Your task to perform on an android device: turn off location history Image 0: 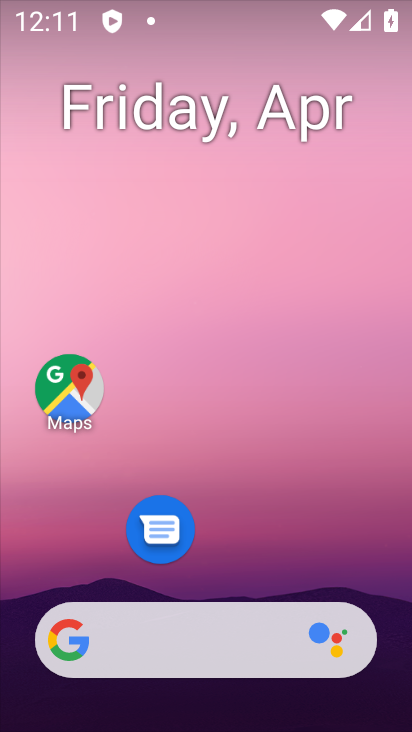
Step 0: drag from (209, 541) to (227, 4)
Your task to perform on an android device: turn off location history Image 1: 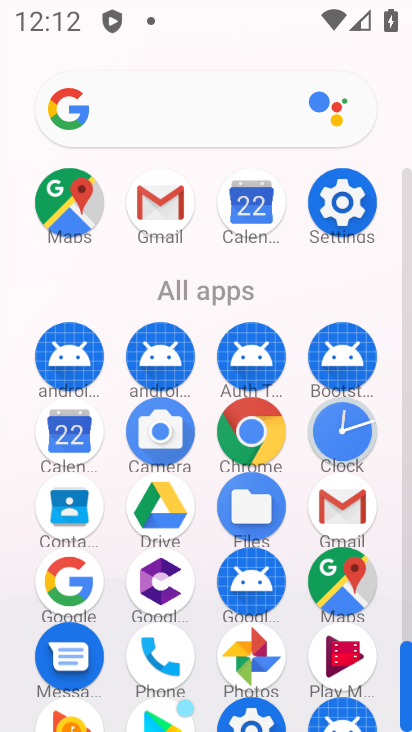
Step 1: click (350, 218)
Your task to perform on an android device: turn off location history Image 2: 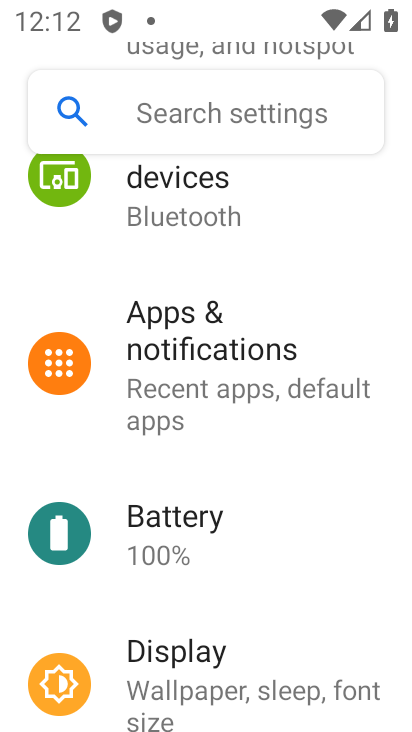
Step 2: drag from (186, 567) to (296, 76)
Your task to perform on an android device: turn off location history Image 3: 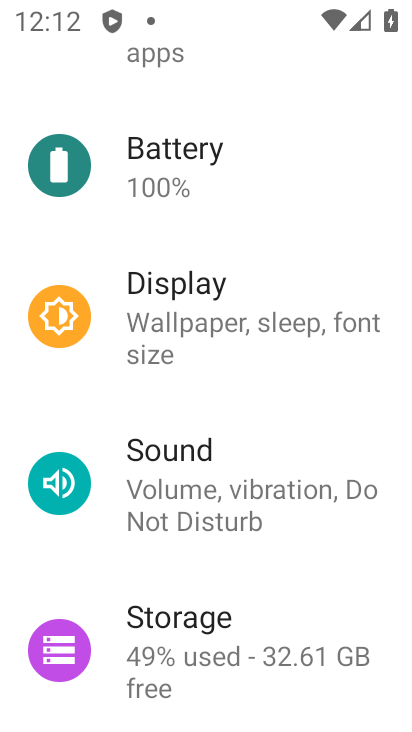
Step 3: drag from (189, 605) to (252, 212)
Your task to perform on an android device: turn off location history Image 4: 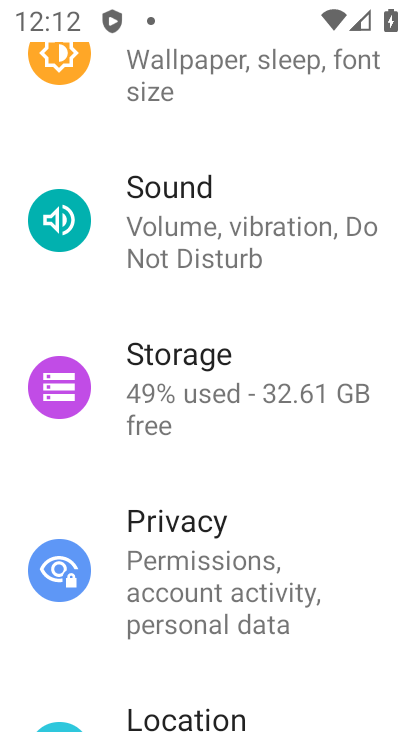
Step 4: drag from (168, 670) to (265, 276)
Your task to perform on an android device: turn off location history Image 5: 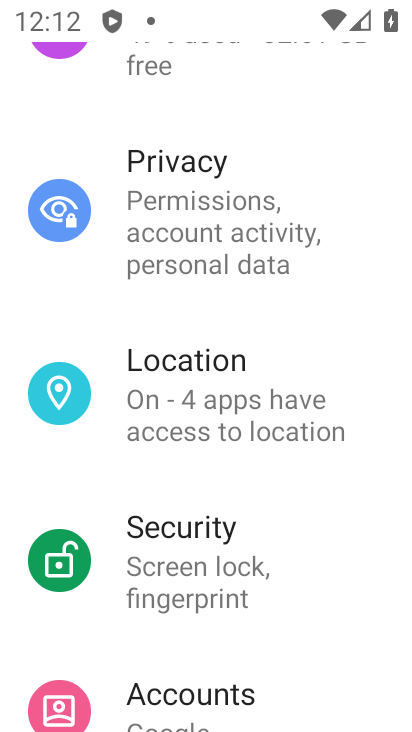
Step 5: click (181, 554)
Your task to perform on an android device: turn off location history Image 6: 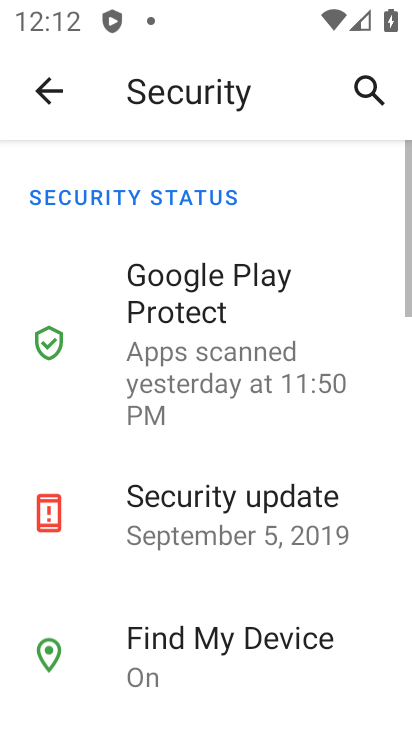
Step 6: click (176, 410)
Your task to perform on an android device: turn off location history Image 7: 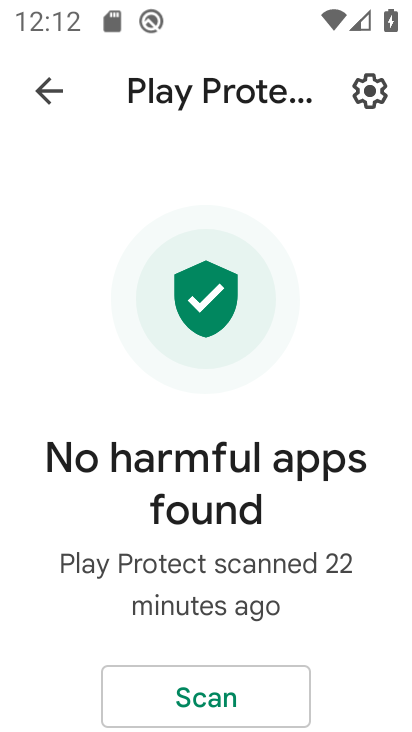
Step 7: press home button
Your task to perform on an android device: turn off location history Image 8: 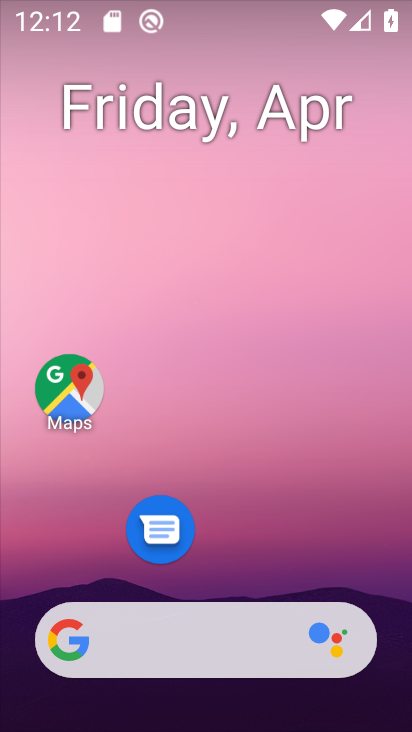
Step 8: drag from (211, 541) to (333, 4)
Your task to perform on an android device: turn off location history Image 9: 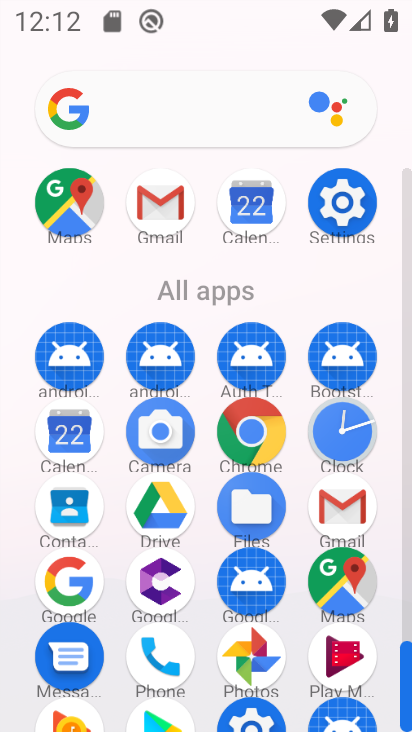
Step 9: drag from (201, 606) to (229, 268)
Your task to perform on an android device: turn off location history Image 10: 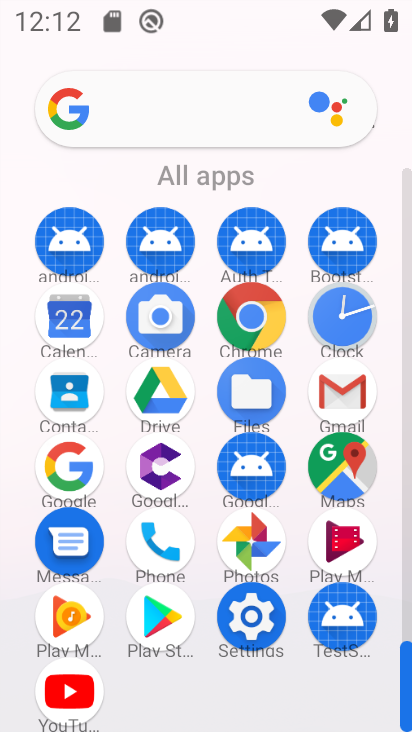
Step 10: click (248, 634)
Your task to perform on an android device: turn off location history Image 11: 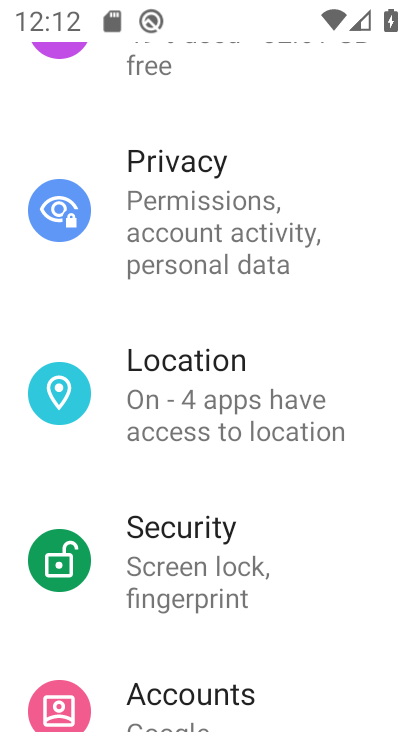
Step 11: click (212, 418)
Your task to perform on an android device: turn off location history Image 12: 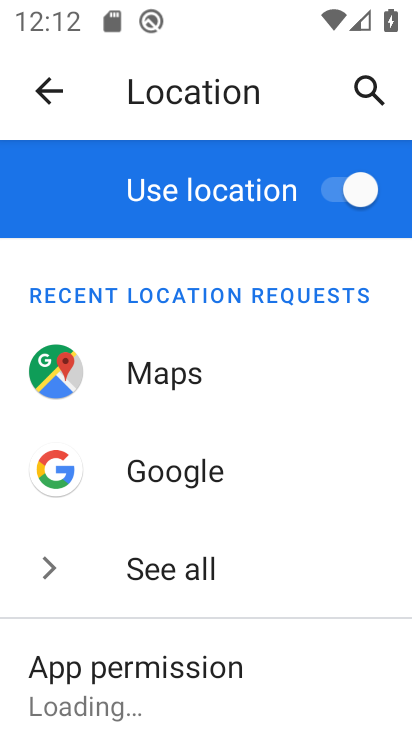
Step 12: drag from (167, 627) to (249, 311)
Your task to perform on an android device: turn off location history Image 13: 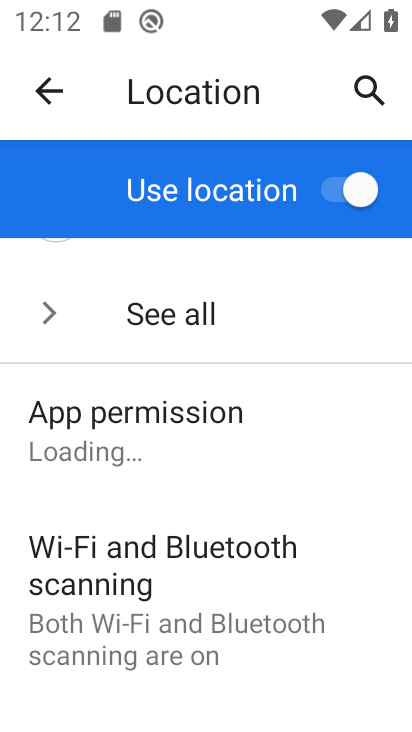
Step 13: drag from (197, 579) to (315, 179)
Your task to perform on an android device: turn off location history Image 14: 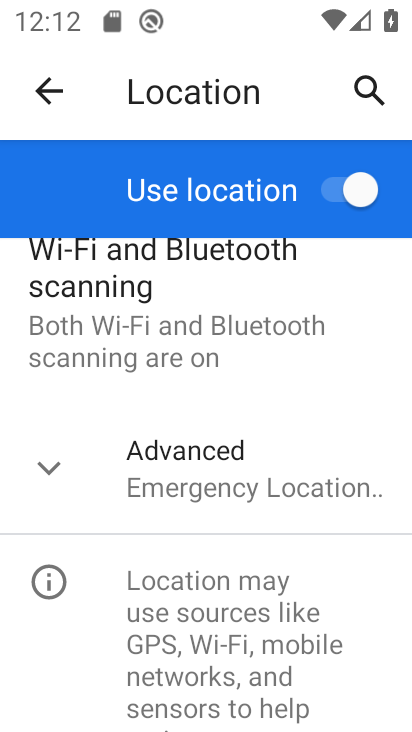
Step 14: click (212, 492)
Your task to perform on an android device: turn off location history Image 15: 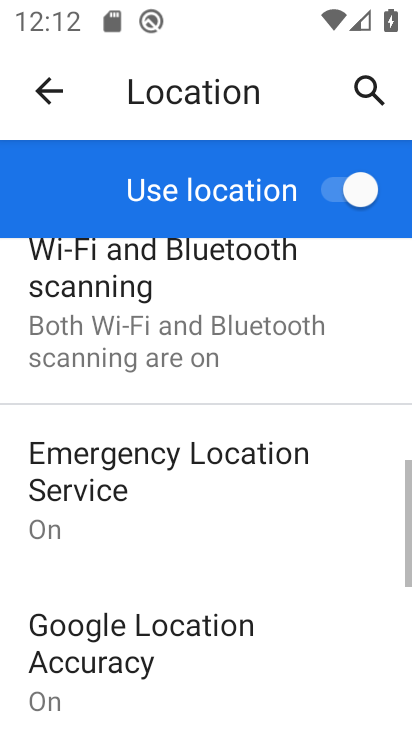
Step 15: drag from (164, 613) to (185, 466)
Your task to perform on an android device: turn off location history Image 16: 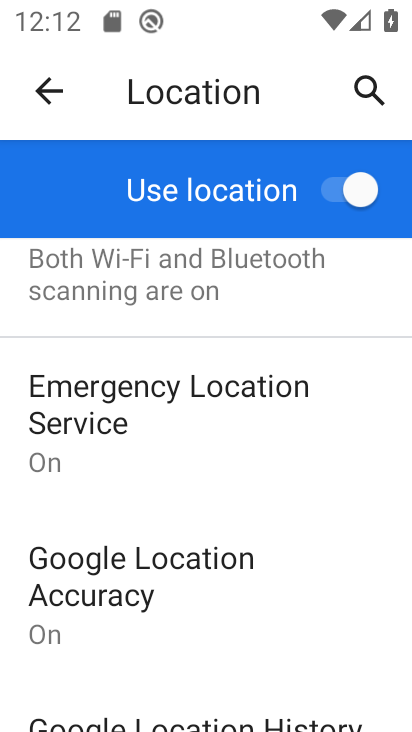
Step 16: drag from (164, 642) to (291, 286)
Your task to perform on an android device: turn off location history Image 17: 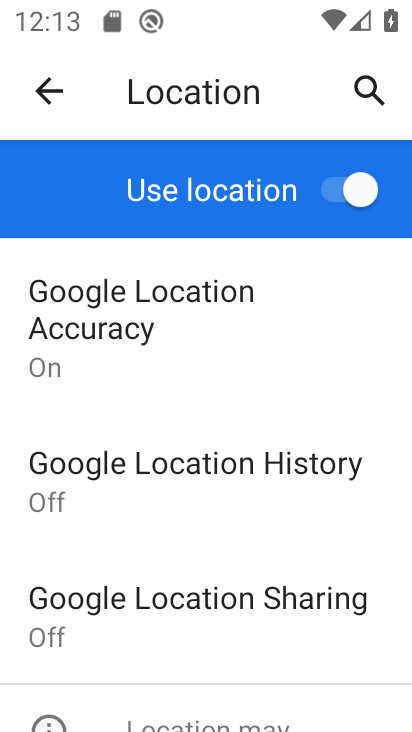
Step 17: click (196, 483)
Your task to perform on an android device: turn off location history Image 18: 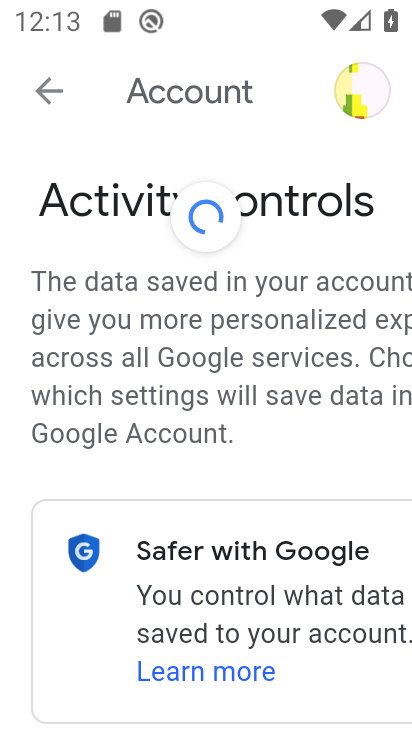
Step 18: drag from (211, 498) to (296, 32)
Your task to perform on an android device: turn off location history Image 19: 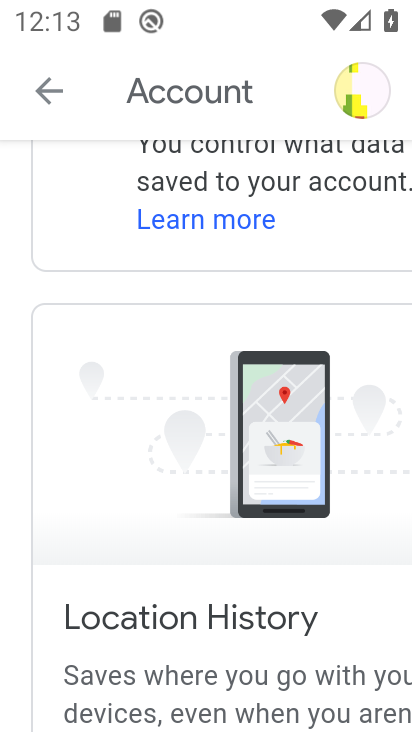
Step 19: drag from (202, 480) to (294, 1)
Your task to perform on an android device: turn off location history Image 20: 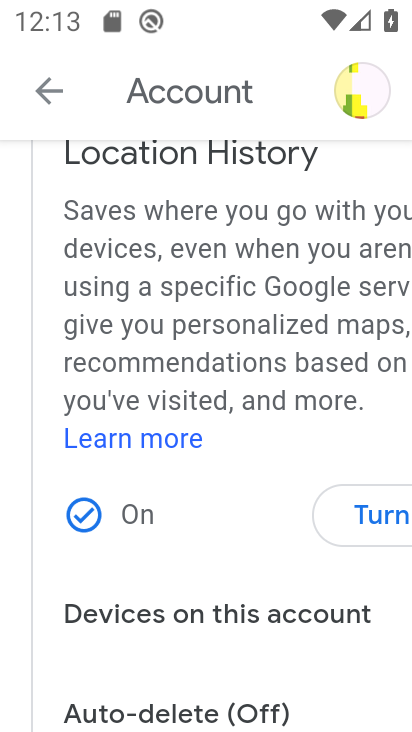
Step 20: click (352, 521)
Your task to perform on an android device: turn off location history Image 21: 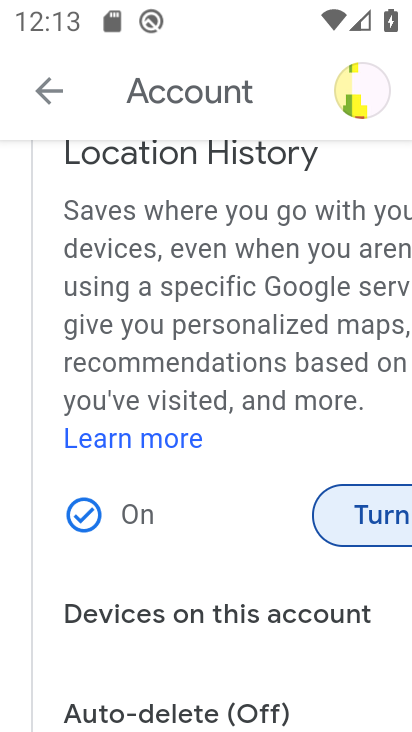
Step 21: click (366, 517)
Your task to perform on an android device: turn off location history Image 22: 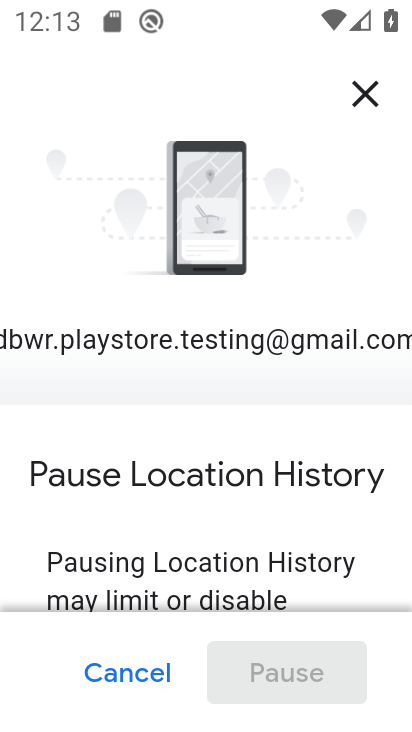
Step 22: drag from (269, 576) to (374, 104)
Your task to perform on an android device: turn off location history Image 23: 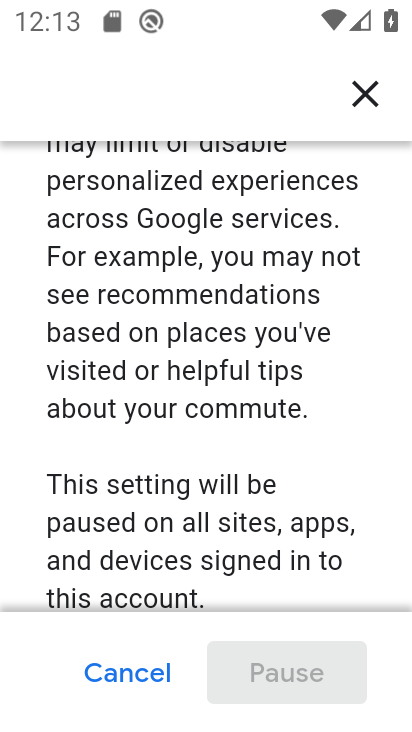
Step 23: drag from (227, 489) to (281, 203)
Your task to perform on an android device: turn off location history Image 24: 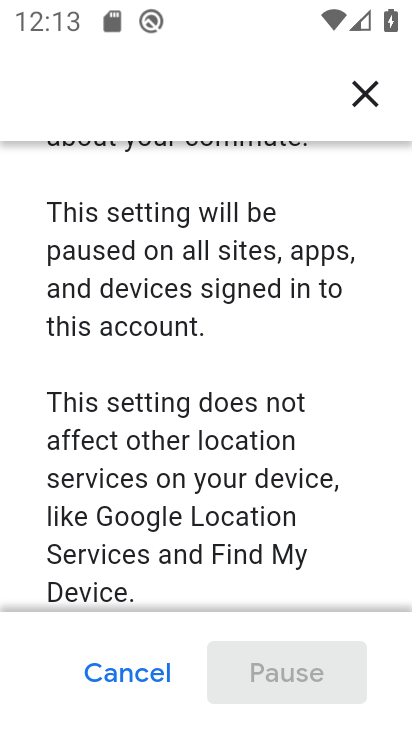
Step 24: drag from (191, 512) to (235, 269)
Your task to perform on an android device: turn off location history Image 25: 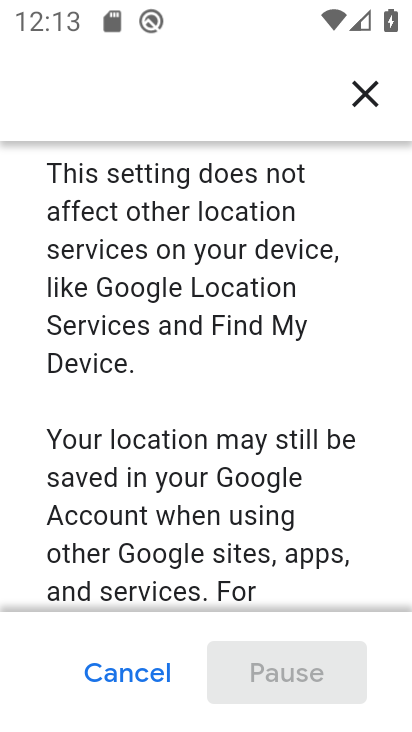
Step 25: drag from (192, 557) to (248, 294)
Your task to perform on an android device: turn off location history Image 26: 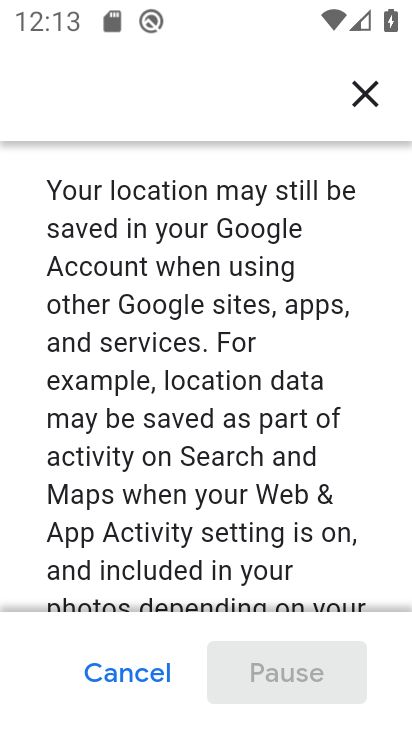
Step 26: drag from (236, 539) to (279, 295)
Your task to perform on an android device: turn off location history Image 27: 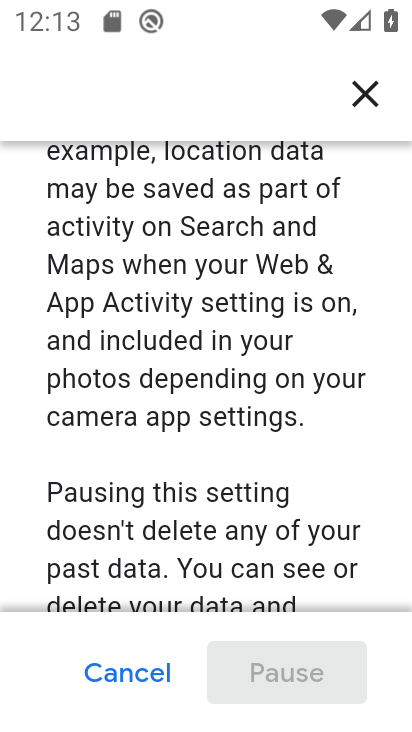
Step 27: drag from (213, 542) to (266, 240)
Your task to perform on an android device: turn off location history Image 28: 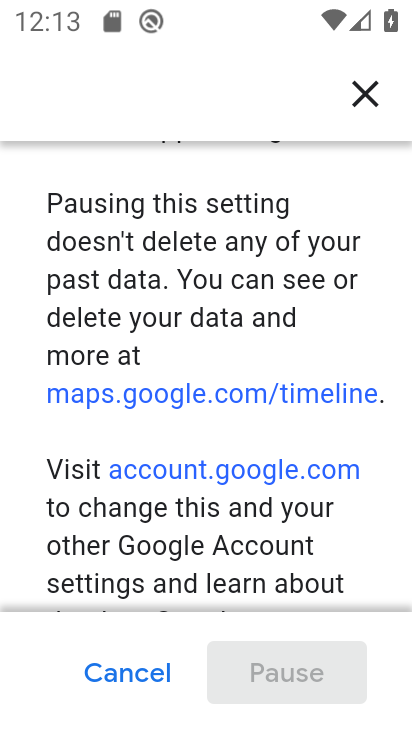
Step 28: drag from (264, 535) to (325, 178)
Your task to perform on an android device: turn off location history Image 29: 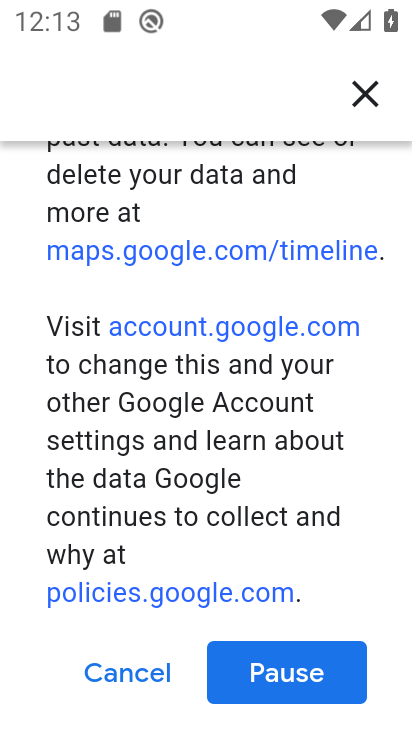
Step 29: click (278, 672)
Your task to perform on an android device: turn off location history Image 30: 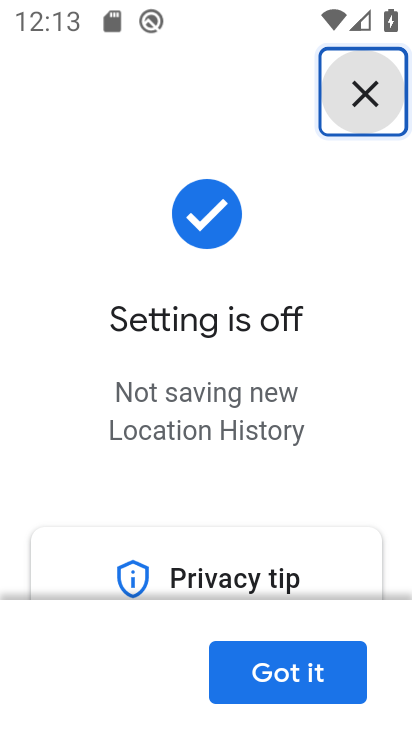
Step 30: click (278, 673)
Your task to perform on an android device: turn off location history Image 31: 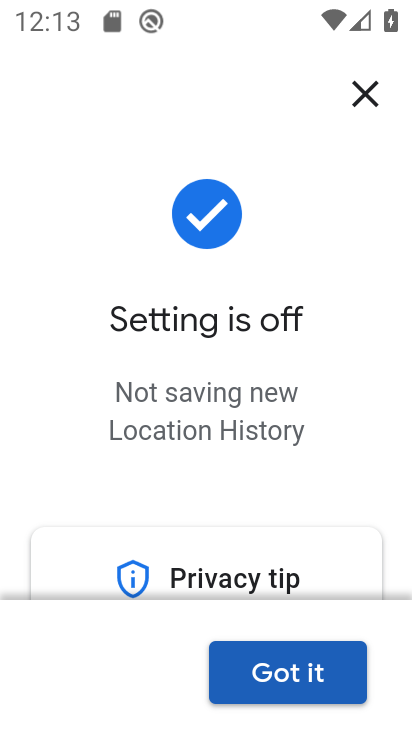
Step 31: click (278, 673)
Your task to perform on an android device: turn off location history Image 32: 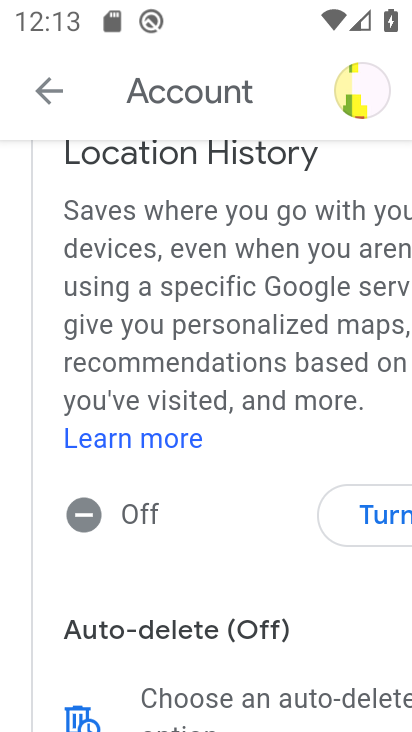
Step 32: task complete